Your task to perform on an android device: Open Reddit.com Image 0: 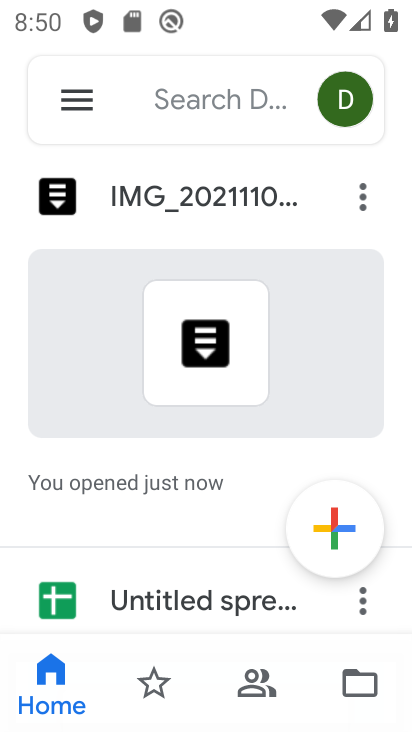
Step 0: press home button
Your task to perform on an android device: Open Reddit.com Image 1: 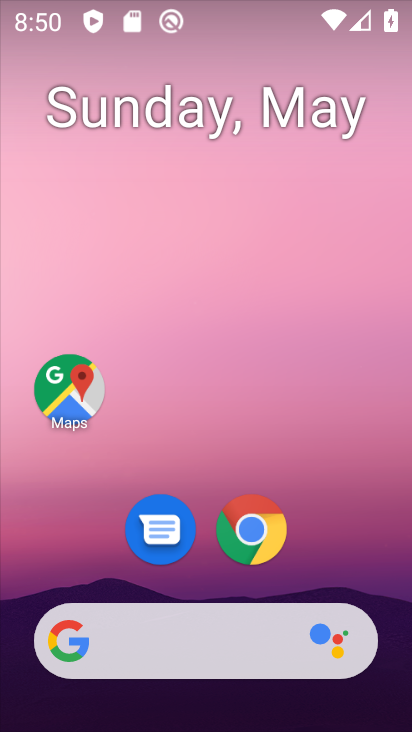
Step 1: drag from (374, 534) to (175, 20)
Your task to perform on an android device: Open Reddit.com Image 2: 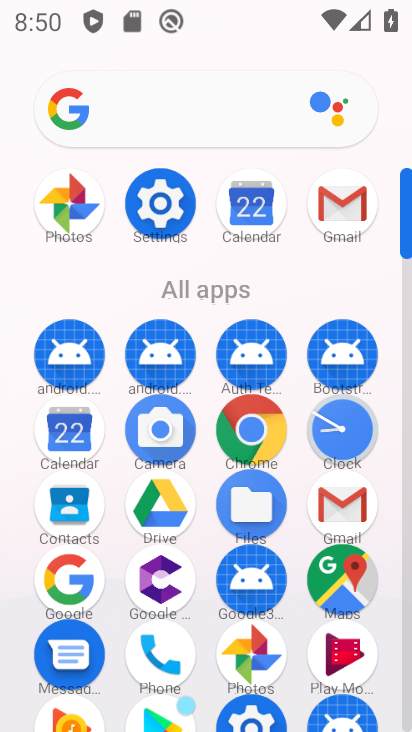
Step 2: click (56, 562)
Your task to perform on an android device: Open Reddit.com Image 3: 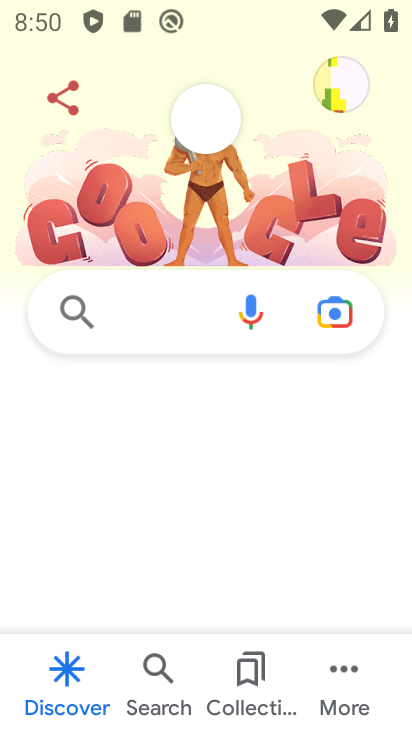
Step 3: click (98, 307)
Your task to perform on an android device: Open Reddit.com Image 4: 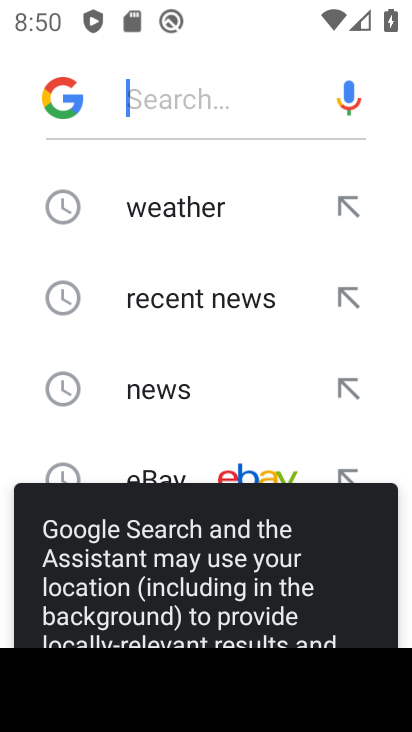
Step 4: drag from (290, 368) to (172, 0)
Your task to perform on an android device: Open Reddit.com Image 5: 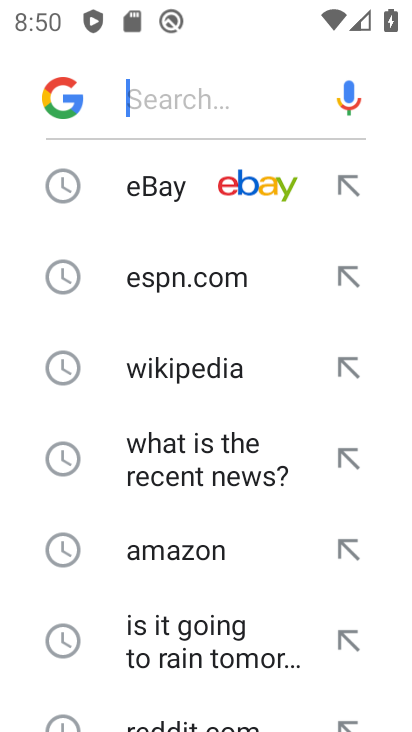
Step 5: drag from (164, 660) to (0, 147)
Your task to perform on an android device: Open Reddit.com Image 6: 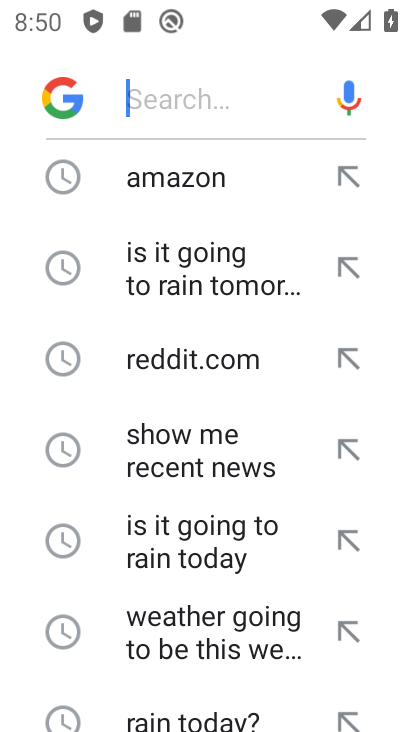
Step 6: click (249, 368)
Your task to perform on an android device: Open Reddit.com Image 7: 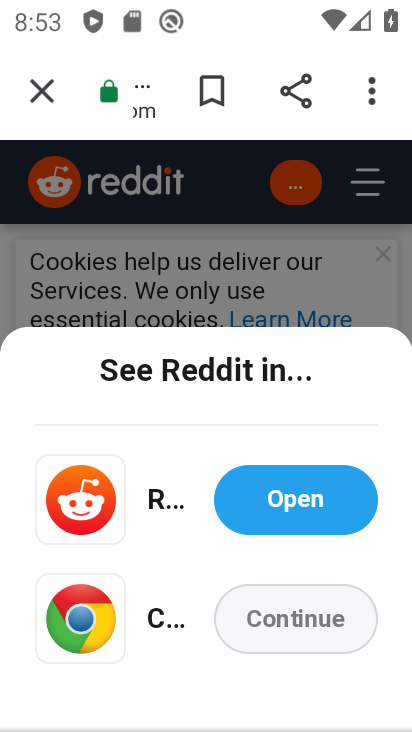
Step 7: task complete